Your task to perform on an android device: Open Yahoo.com Image 0: 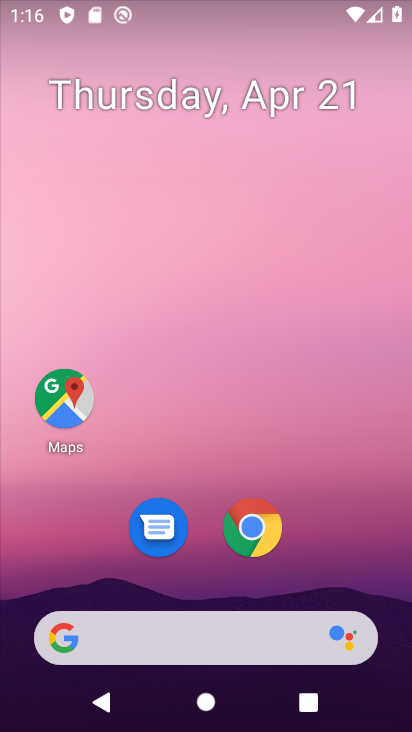
Step 0: drag from (326, 531) to (376, 237)
Your task to perform on an android device: Open Yahoo.com Image 1: 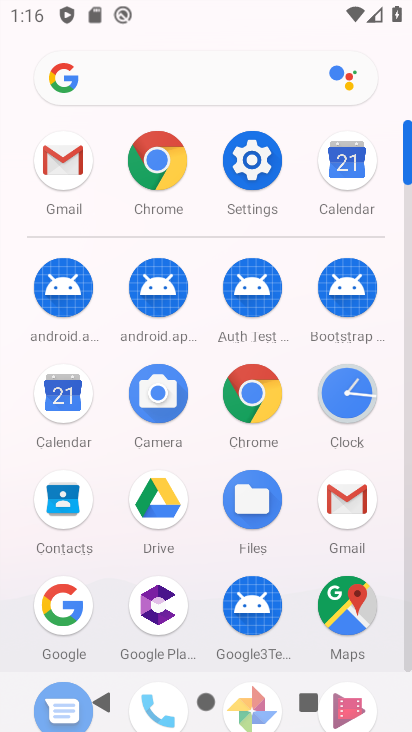
Step 1: click (259, 393)
Your task to perform on an android device: Open Yahoo.com Image 2: 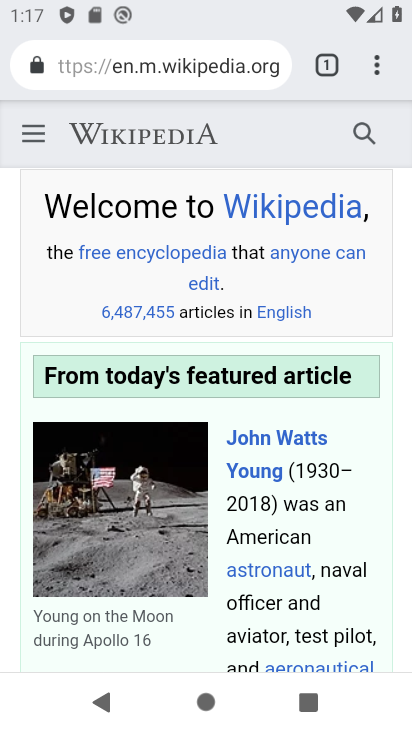
Step 2: press back button
Your task to perform on an android device: Open Yahoo.com Image 3: 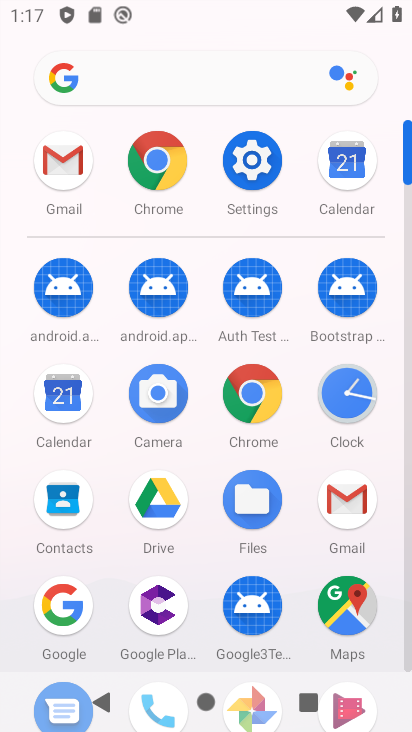
Step 3: click (252, 414)
Your task to perform on an android device: Open Yahoo.com Image 4: 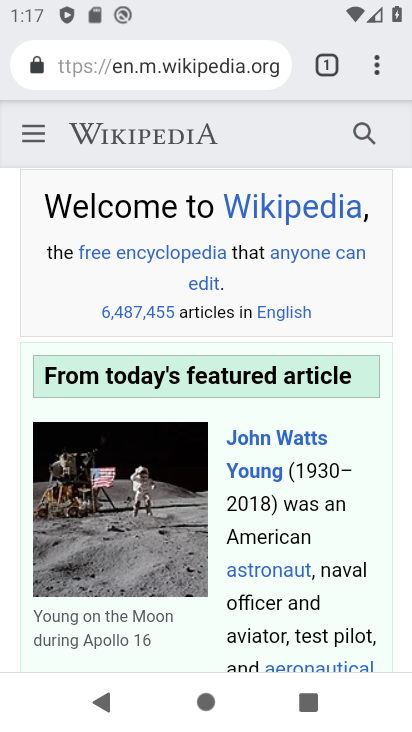
Step 4: click (184, 53)
Your task to perform on an android device: Open Yahoo.com Image 5: 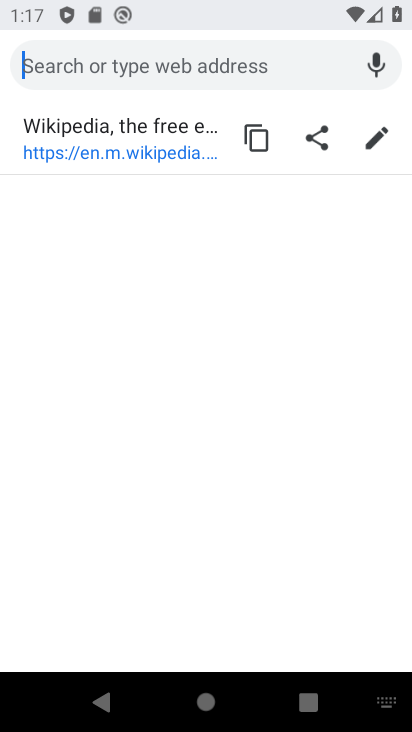
Step 5: type "yahoo.com"
Your task to perform on an android device: Open Yahoo.com Image 6: 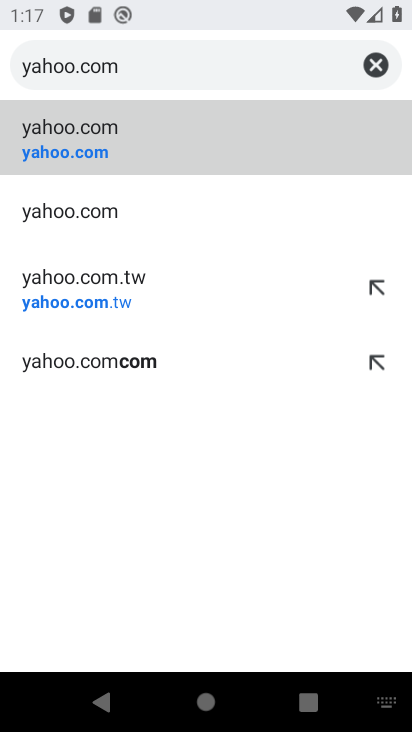
Step 6: click (171, 231)
Your task to perform on an android device: Open Yahoo.com Image 7: 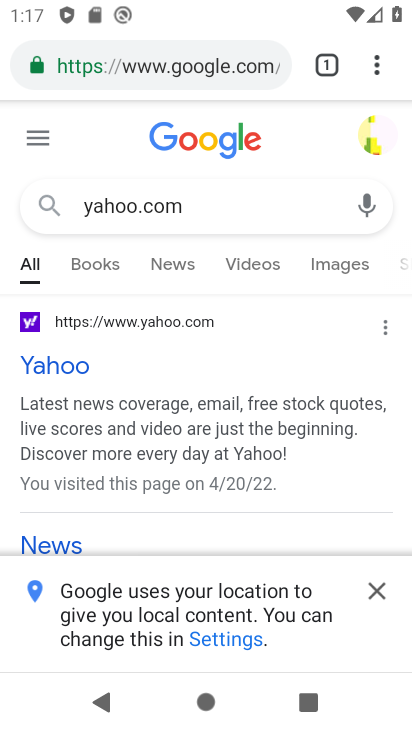
Step 7: task complete